Your task to perform on an android device: open chrome privacy settings Image 0: 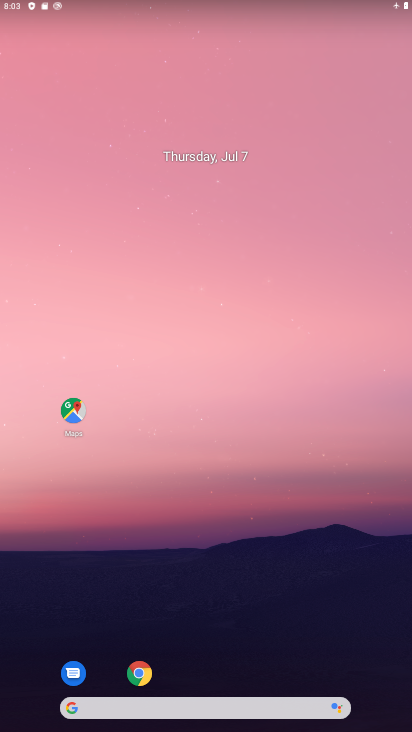
Step 0: drag from (200, 684) to (174, 71)
Your task to perform on an android device: open chrome privacy settings Image 1: 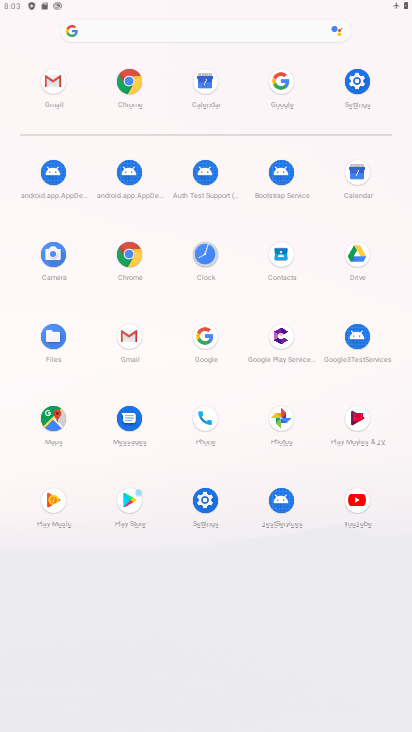
Step 1: click (127, 267)
Your task to perform on an android device: open chrome privacy settings Image 2: 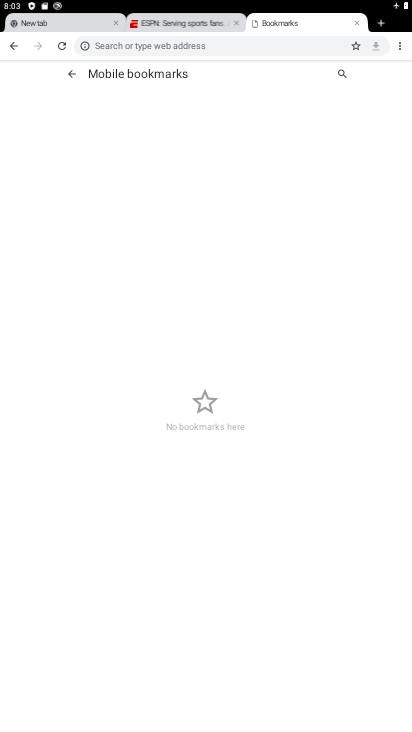
Step 2: drag from (395, 34) to (308, 201)
Your task to perform on an android device: open chrome privacy settings Image 3: 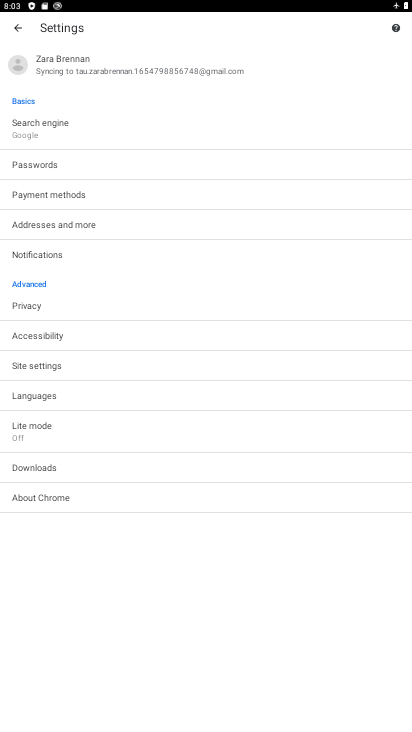
Step 3: click (22, 313)
Your task to perform on an android device: open chrome privacy settings Image 4: 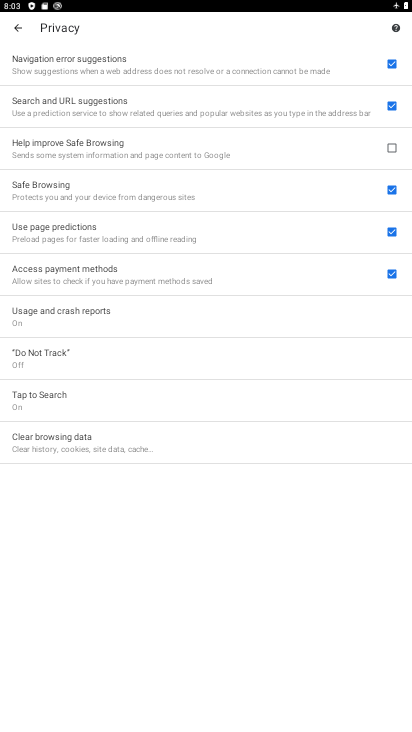
Step 4: task complete